Your task to perform on an android device: Open calendar and show me the third week of next month Image 0: 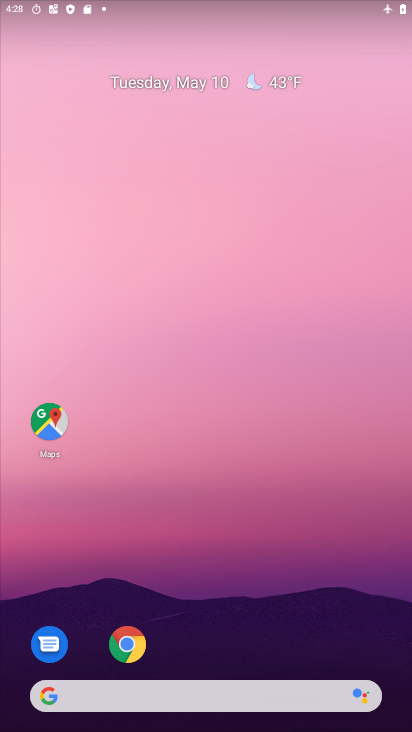
Step 0: drag from (191, 674) to (192, 295)
Your task to perform on an android device: Open calendar and show me the third week of next month Image 1: 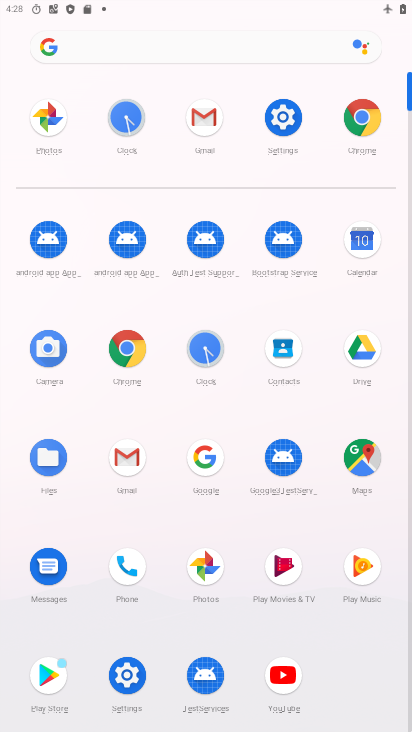
Step 1: click (361, 242)
Your task to perform on an android device: Open calendar and show me the third week of next month Image 2: 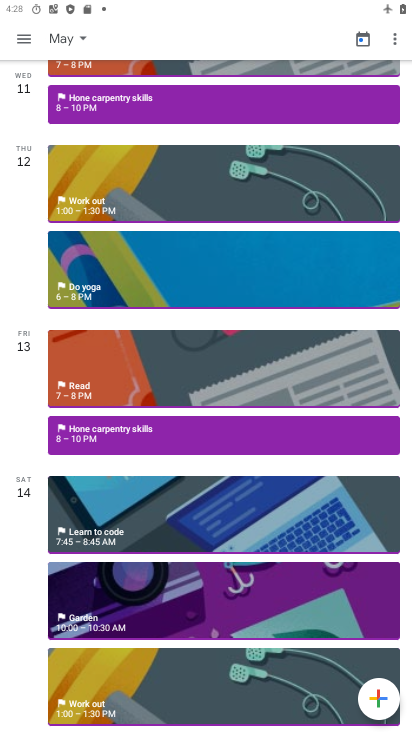
Step 2: click (59, 30)
Your task to perform on an android device: Open calendar and show me the third week of next month Image 3: 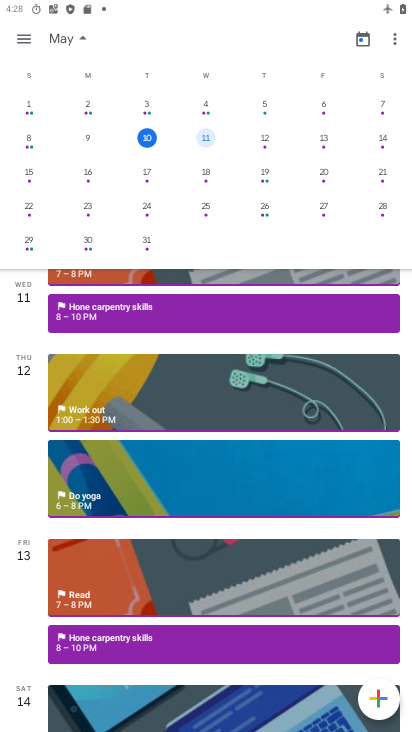
Step 3: drag from (345, 216) to (11, 196)
Your task to perform on an android device: Open calendar and show me the third week of next month Image 4: 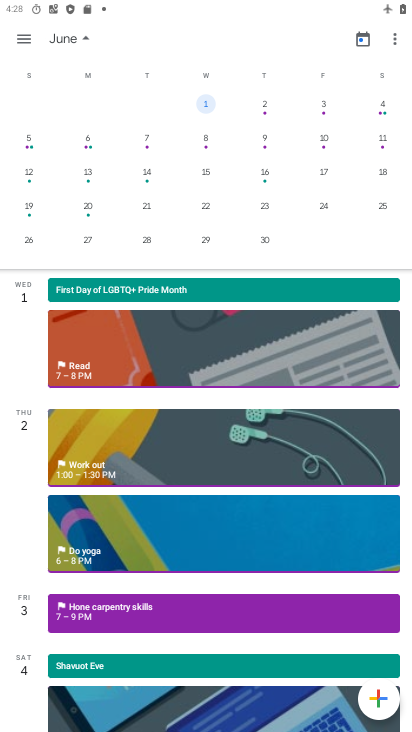
Step 4: click (37, 170)
Your task to perform on an android device: Open calendar and show me the third week of next month Image 5: 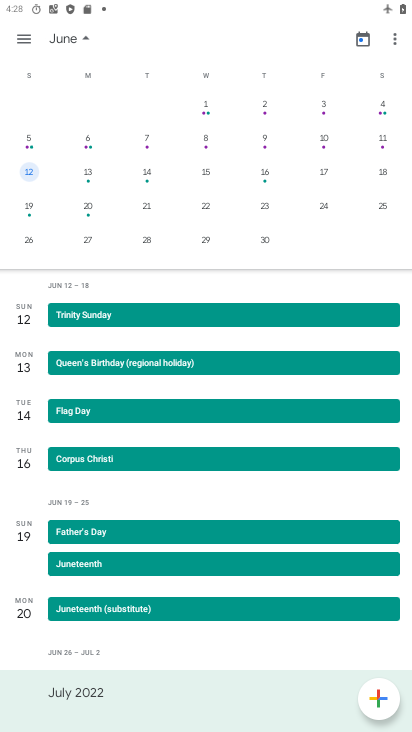
Step 5: task complete